Your task to perform on an android device: Find coffee shops on Maps Image 0: 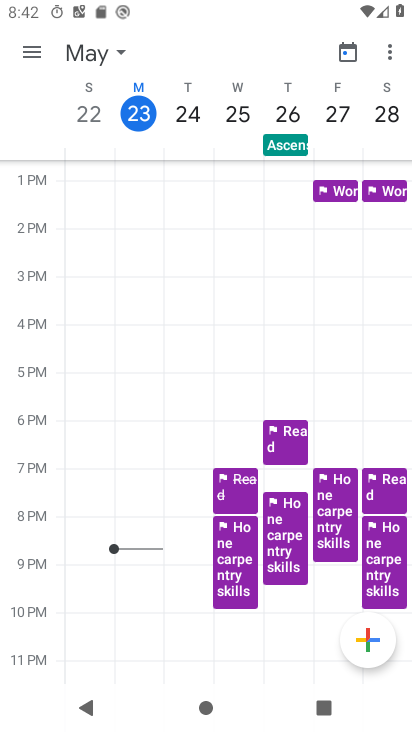
Step 0: press home button
Your task to perform on an android device: Find coffee shops on Maps Image 1: 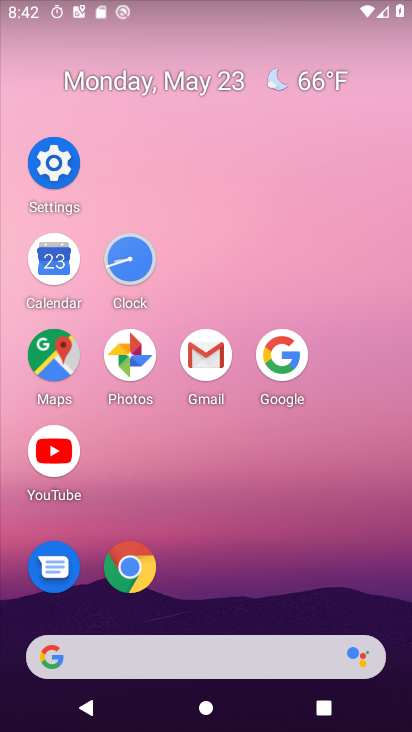
Step 1: click (42, 355)
Your task to perform on an android device: Find coffee shops on Maps Image 2: 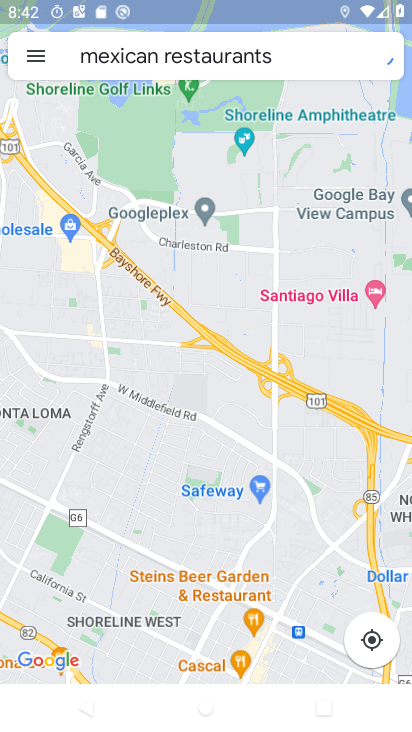
Step 2: click (285, 54)
Your task to perform on an android device: Find coffee shops on Maps Image 3: 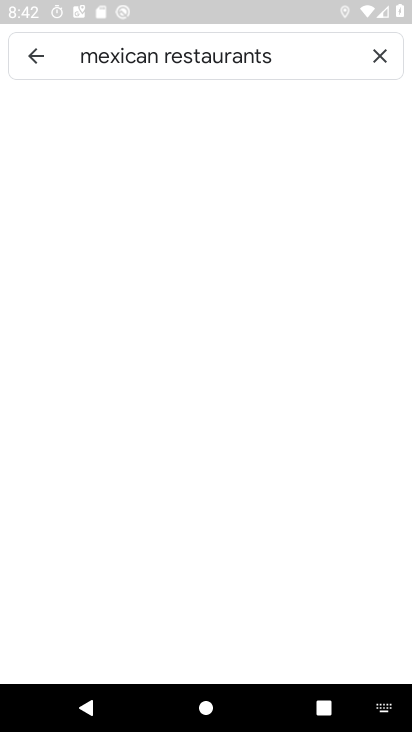
Step 3: click (376, 65)
Your task to perform on an android device: Find coffee shops on Maps Image 4: 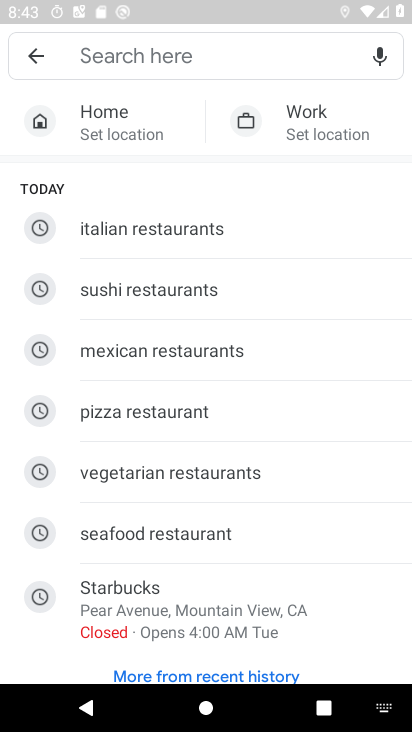
Step 4: type "coffee shops"
Your task to perform on an android device: Find coffee shops on Maps Image 5: 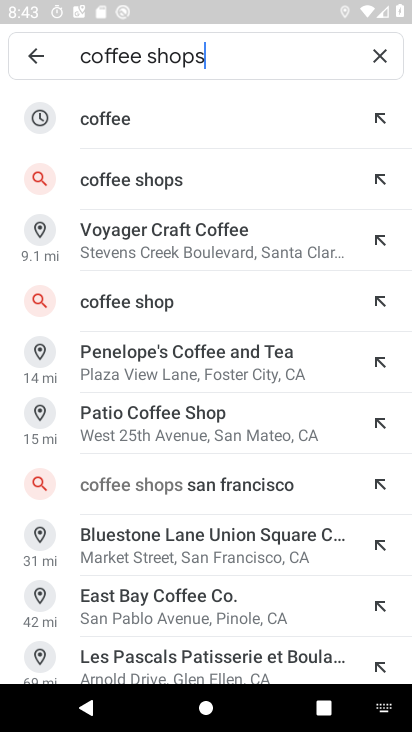
Step 5: task complete